Your task to perform on an android device: Open Google Maps Image 0: 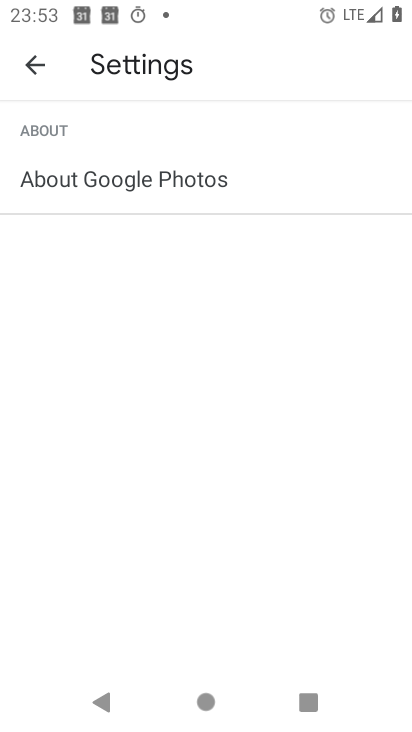
Step 0: press home button
Your task to perform on an android device: Open Google Maps Image 1: 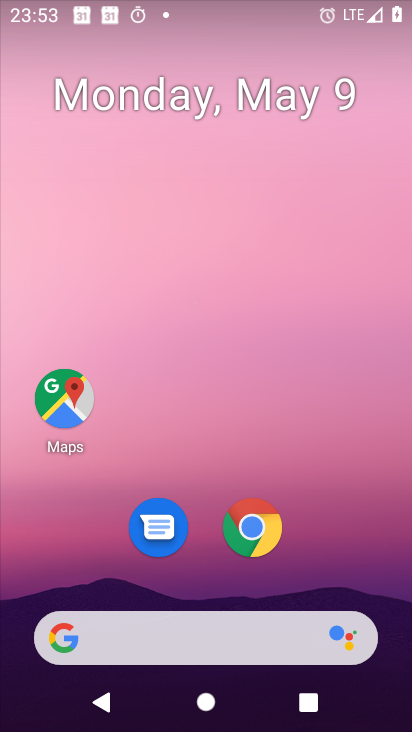
Step 1: click (64, 399)
Your task to perform on an android device: Open Google Maps Image 2: 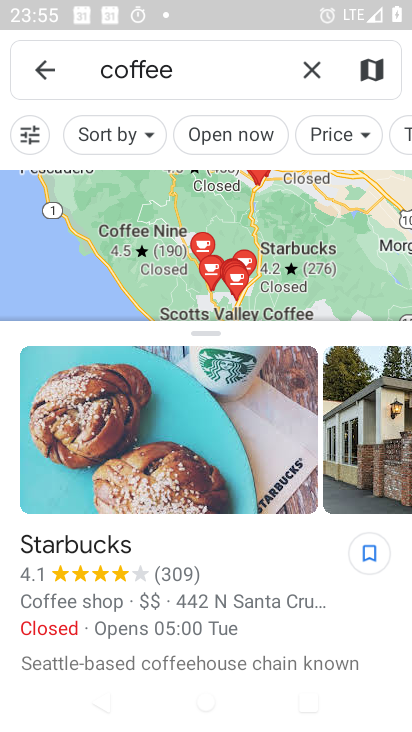
Step 2: task complete